Your task to perform on an android device: Open the phone app and click the voicemail tab. Image 0: 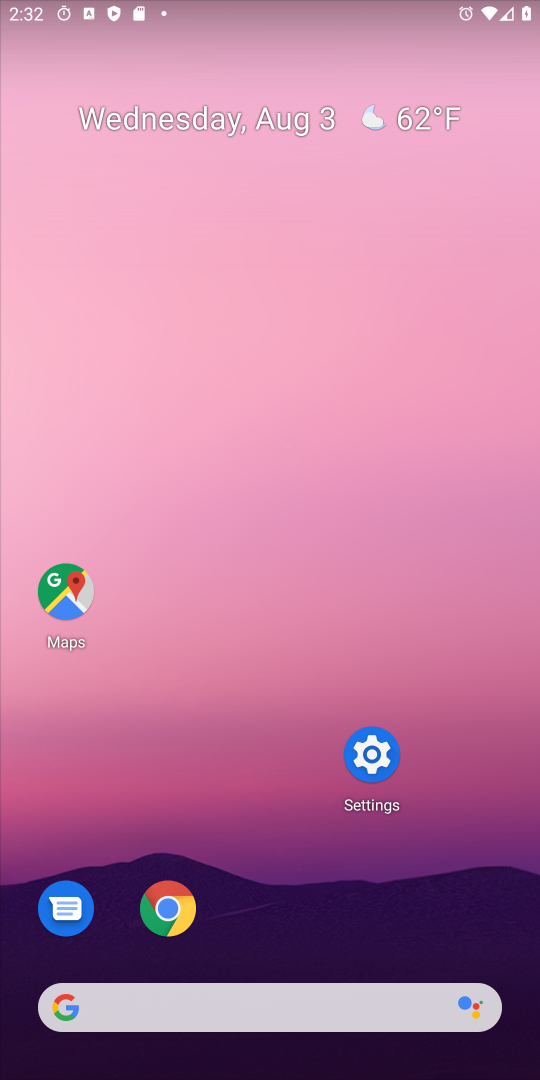
Step 0: drag from (286, 799) to (245, 105)
Your task to perform on an android device: Open the phone app and click the voicemail tab. Image 1: 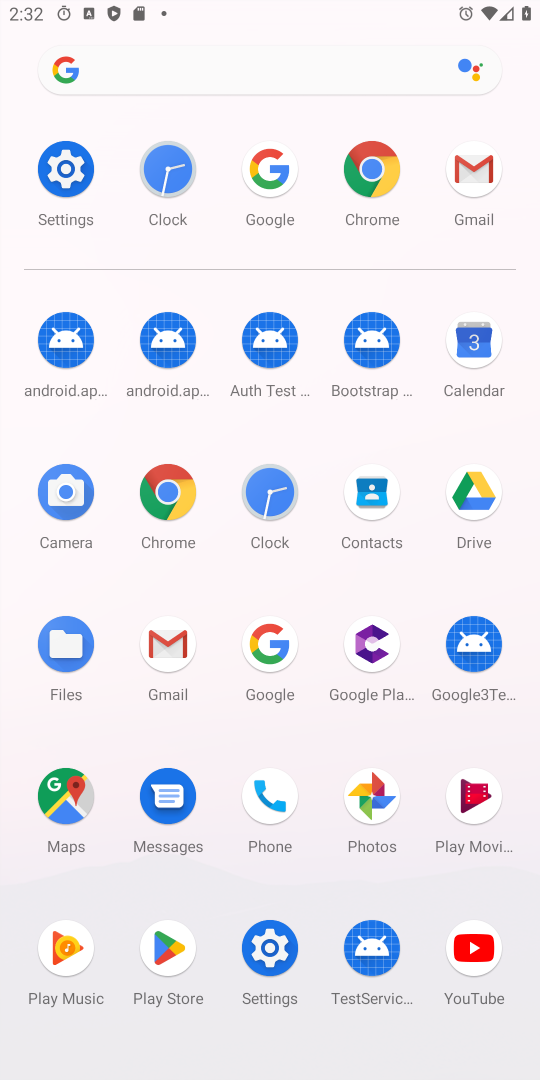
Step 1: click (288, 799)
Your task to perform on an android device: Open the phone app and click the voicemail tab. Image 2: 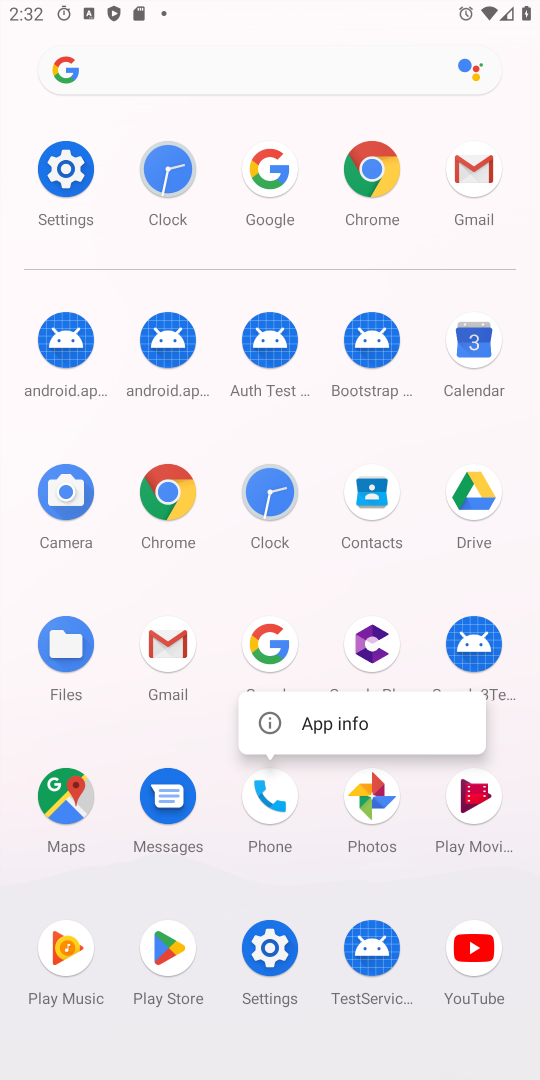
Step 2: click (270, 809)
Your task to perform on an android device: Open the phone app and click the voicemail tab. Image 3: 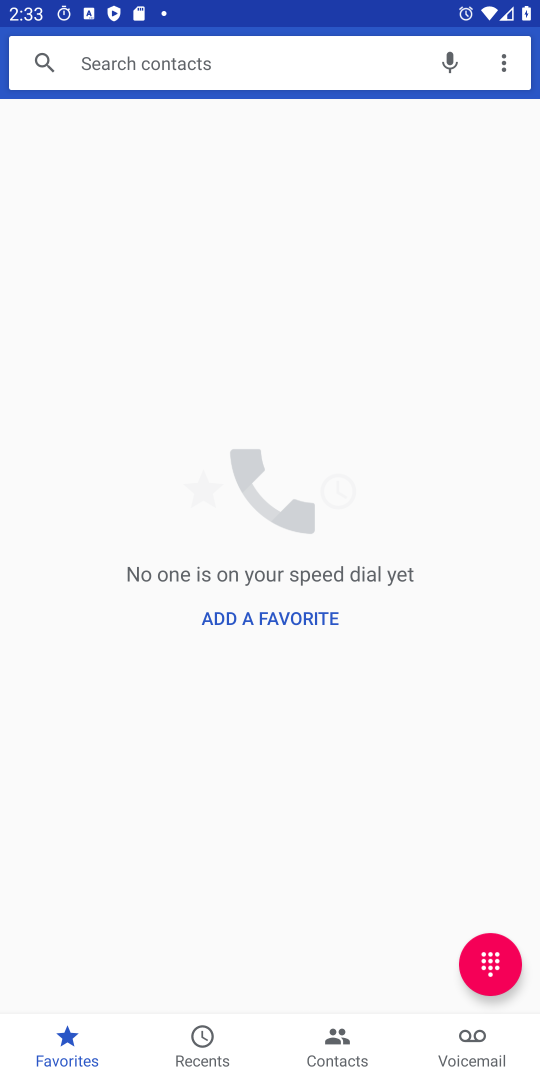
Step 3: click (493, 1071)
Your task to perform on an android device: Open the phone app and click the voicemail tab. Image 4: 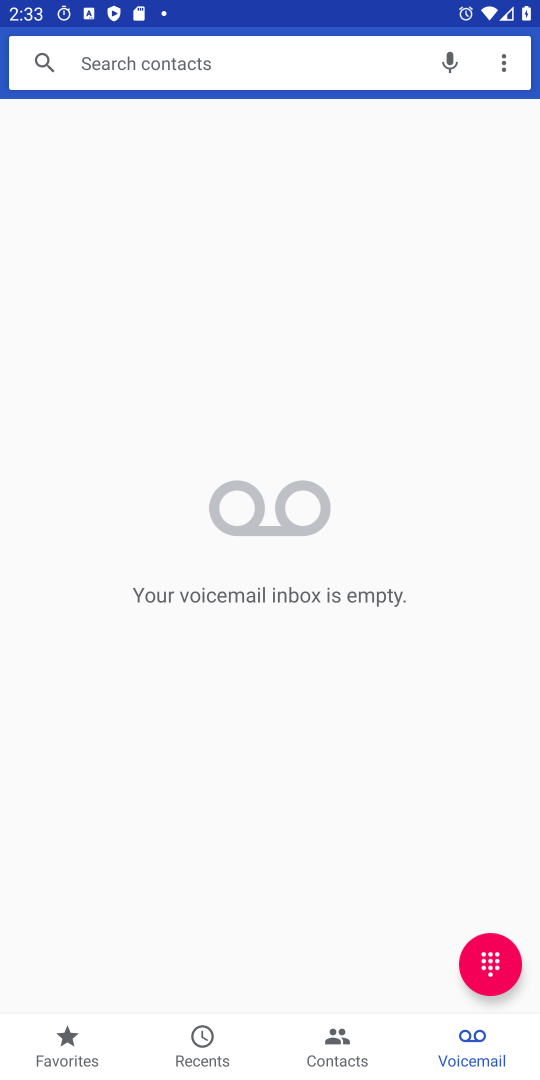
Step 4: task complete